Your task to perform on an android device: manage bookmarks in the chrome app Image 0: 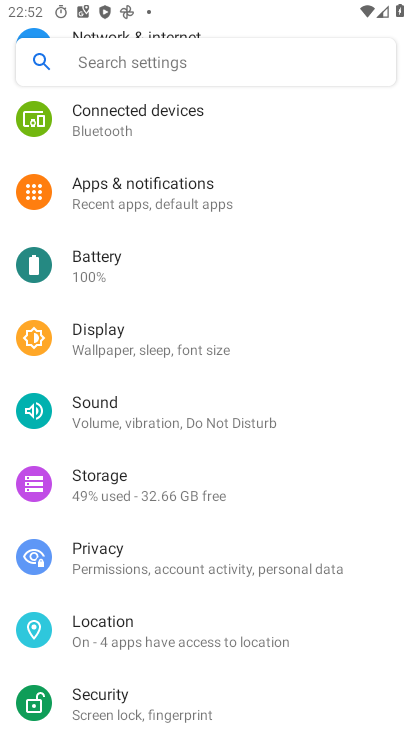
Step 0: press home button
Your task to perform on an android device: manage bookmarks in the chrome app Image 1: 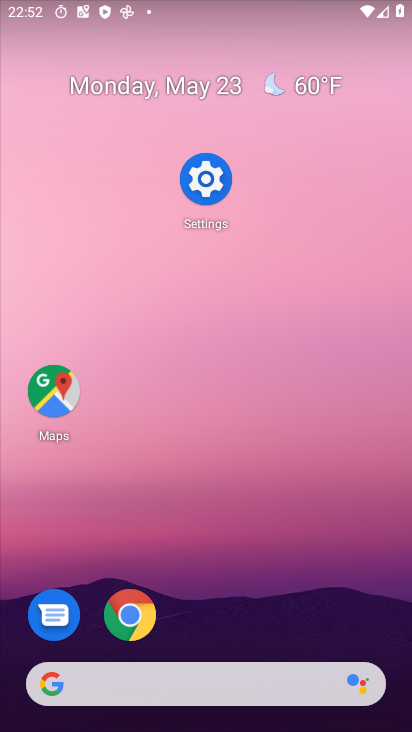
Step 1: click (134, 615)
Your task to perform on an android device: manage bookmarks in the chrome app Image 2: 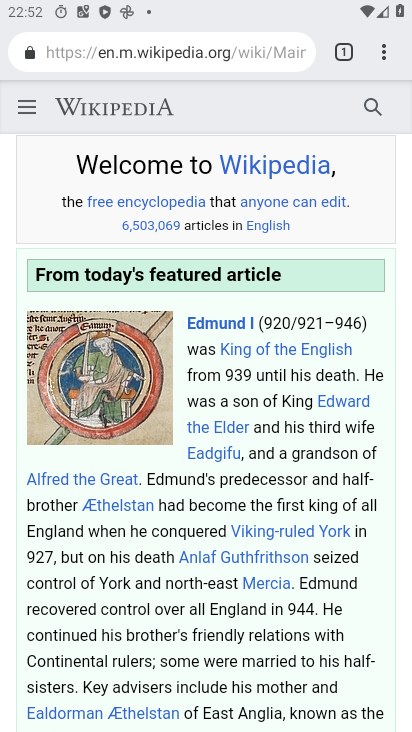
Step 2: click (376, 53)
Your task to perform on an android device: manage bookmarks in the chrome app Image 3: 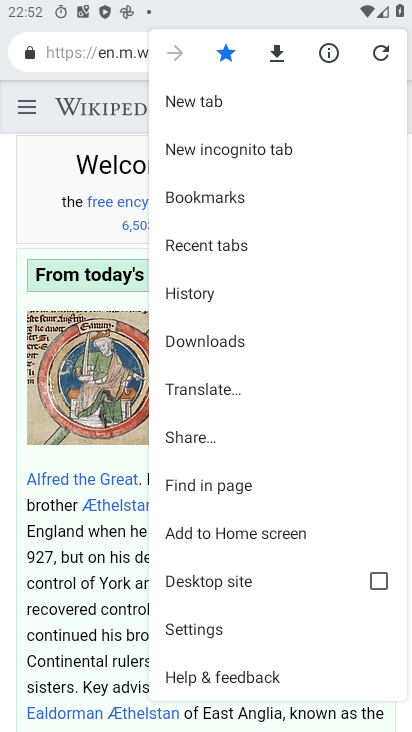
Step 3: click (204, 200)
Your task to perform on an android device: manage bookmarks in the chrome app Image 4: 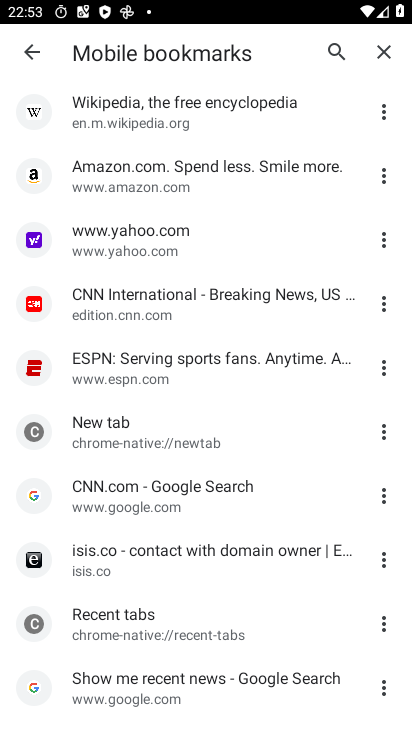
Step 4: click (376, 435)
Your task to perform on an android device: manage bookmarks in the chrome app Image 5: 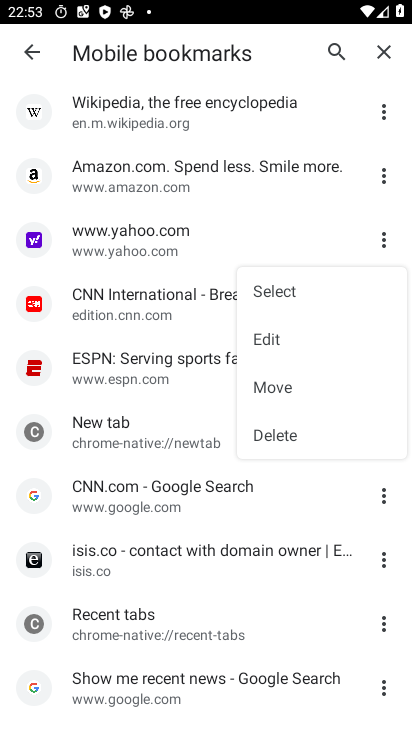
Step 5: click (270, 456)
Your task to perform on an android device: manage bookmarks in the chrome app Image 6: 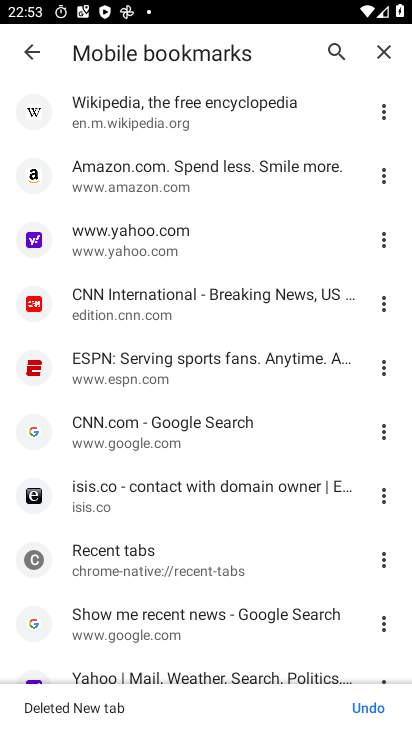
Step 6: task complete